Your task to perform on an android device: Open internet settings Image 0: 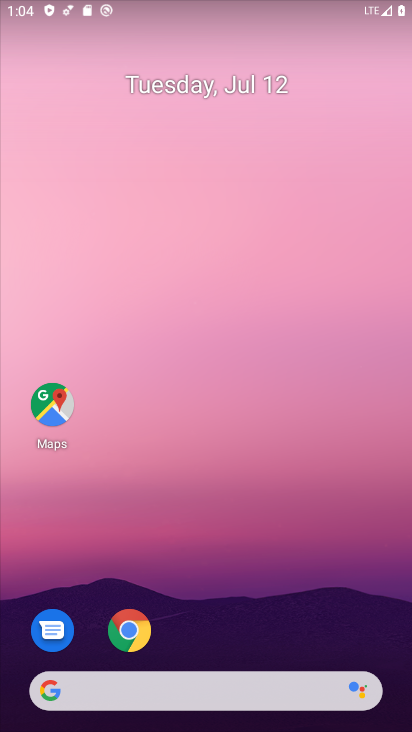
Step 0: drag from (359, 629) to (305, 78)
Your task to perform on an android device: Open internet settings Image 1: 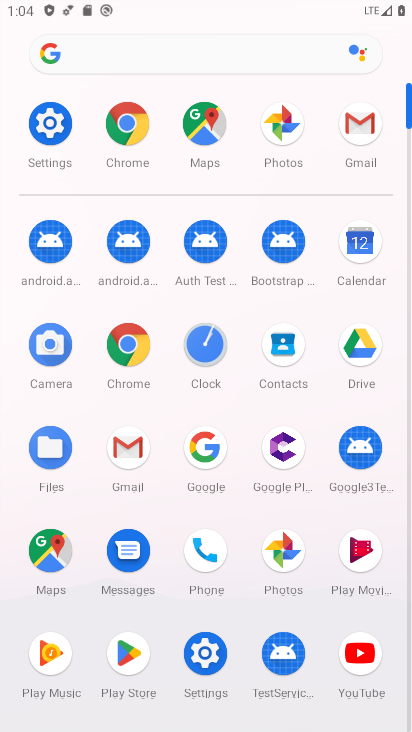
Step 1: click (201, 654)
Your task to perform on an android device: Open internet settings Image 2: 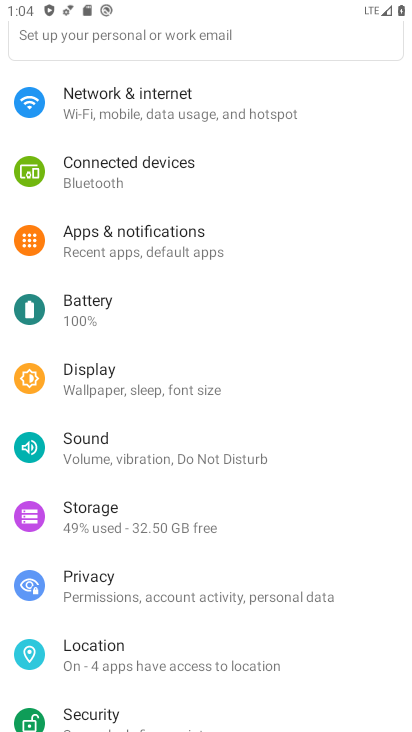
Step 2: click (130, 99)
Your task to perform on an android device: Open internet settings Image 3: 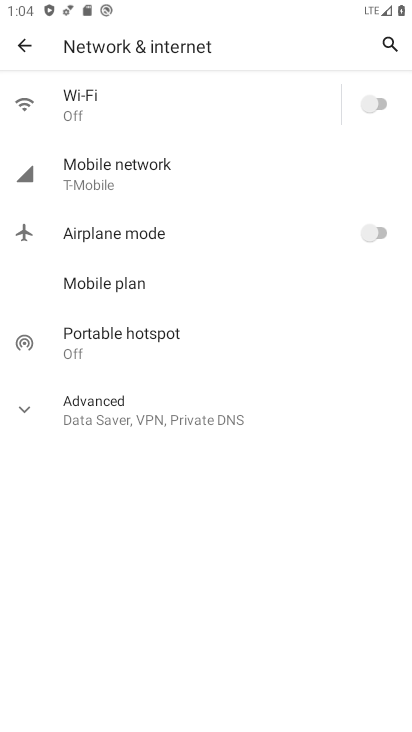
Step 3: click (69, 91)
Your task to perform on an android device: Open internet settings Image 4: 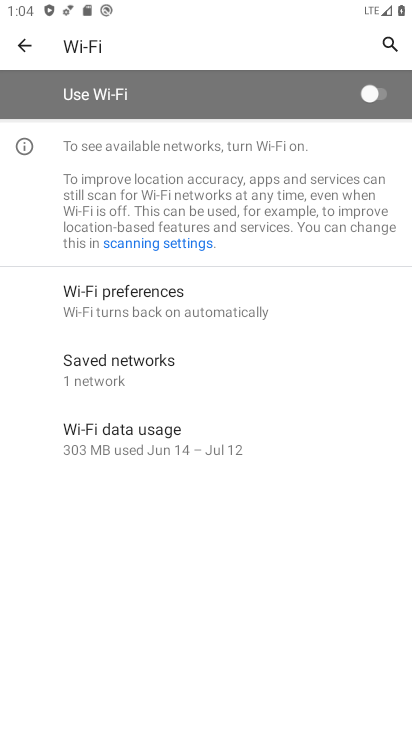
Step 4: task complete